Your task to perform on an android device: What's the weather going to be this weekend? Image 0: 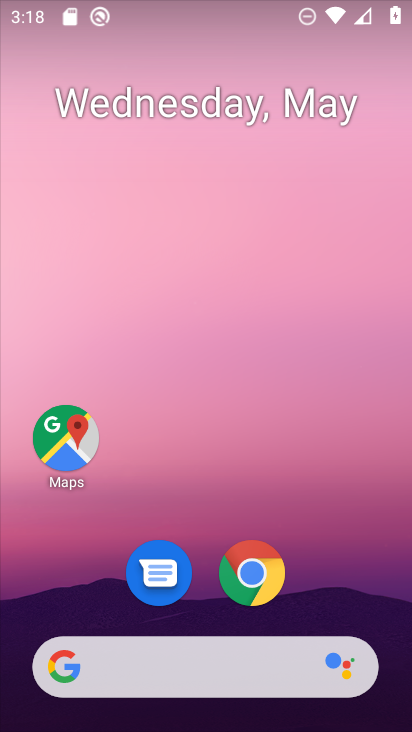
Step 0: click (169, 644)
Your task to perform on an android device: What's the weather going to be this weekend? Image 1: 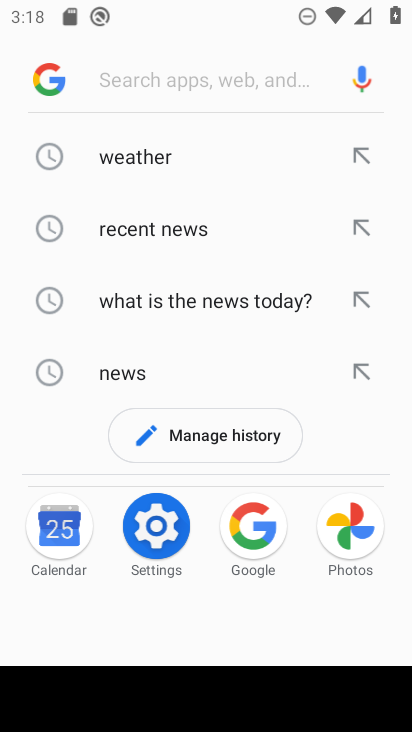
Step 1: type "what's the weather going to be this weekend"
Your task to perform on an android device: What's the weather going to be this weekend? Image 2: 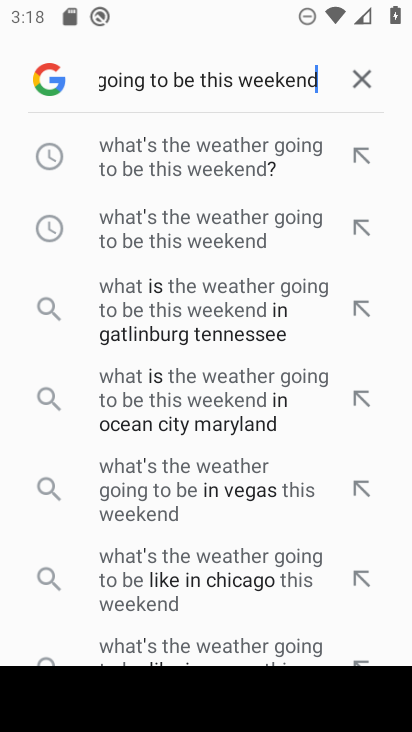
Step 2: click (263, 159)
Your task to perform on an android device: What's the weather going to be this weekend? Image 3: 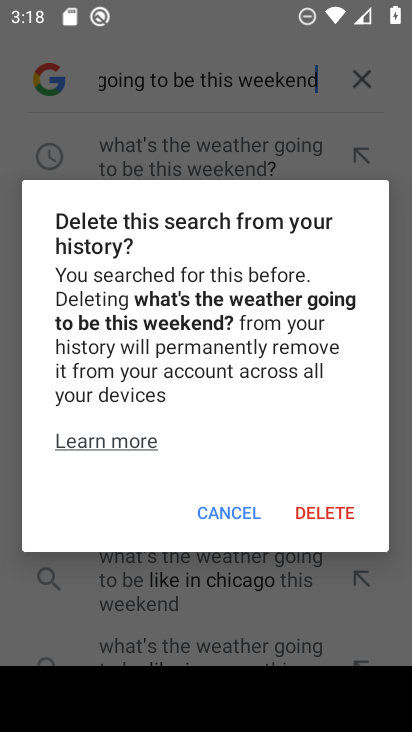
Step 3: click (218, 509)
Your task to perform on an android device: What's the weather going to be this weekend? Image 4: 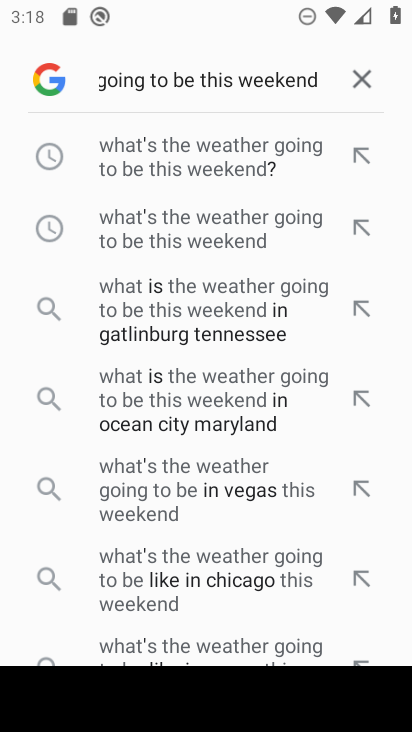
Step 4: click (147, 158)
Your task to perform on an android device: What's the weather going to be this weekend? Image 5: 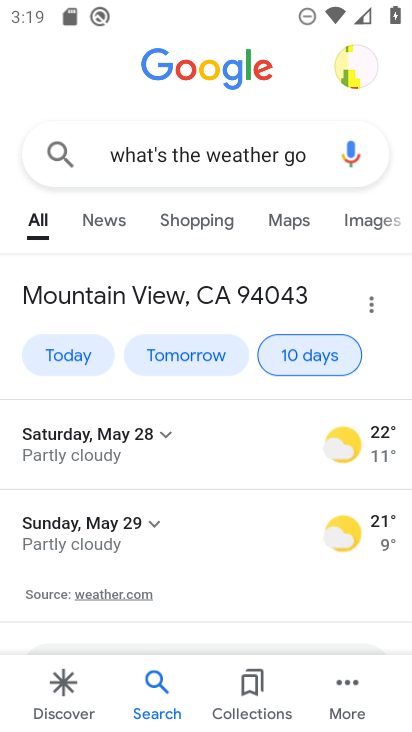
Step 5: task complete